Your task to perform on an android device: toggle show notifications on the lock screen Image 0: 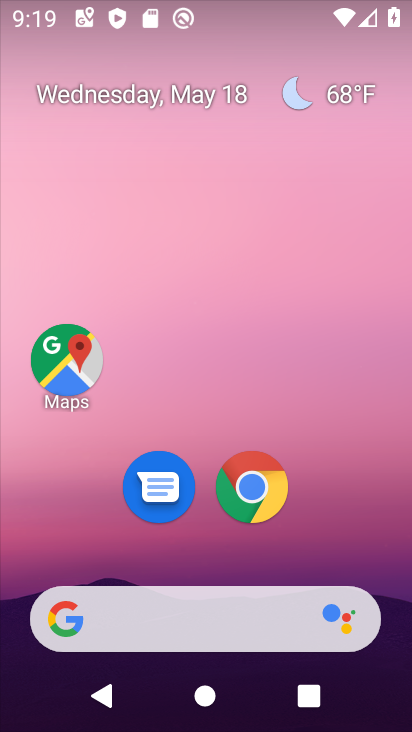
Step 0: drag from (340, 527) to (305, 192)
Your task to perform on an android device: toggle show notifications on the lock screen Image 1: 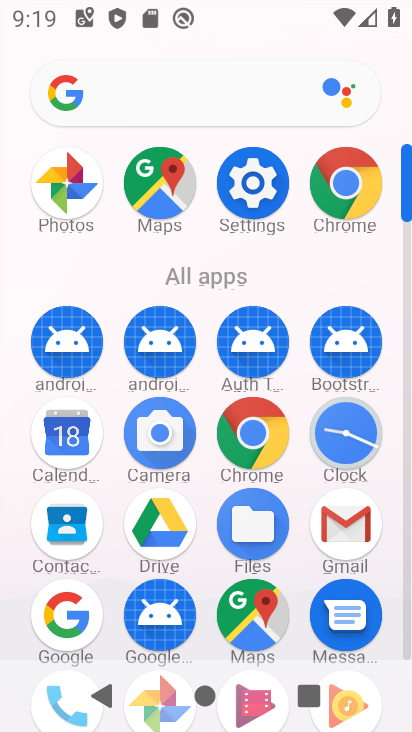
Step 1: click (267, 199)
Your task to perform on an android device: toggle show notifications on the lock screen Image 2: 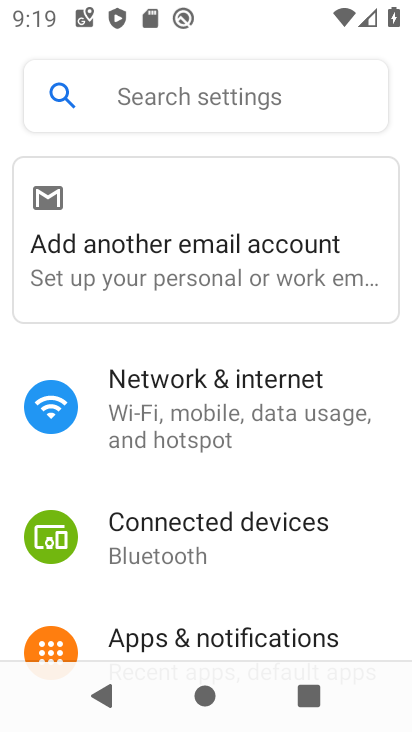
Step 2: click (290, 630)
Your task to perform on an android device: toggle show notifications on the lock screen Image 3: 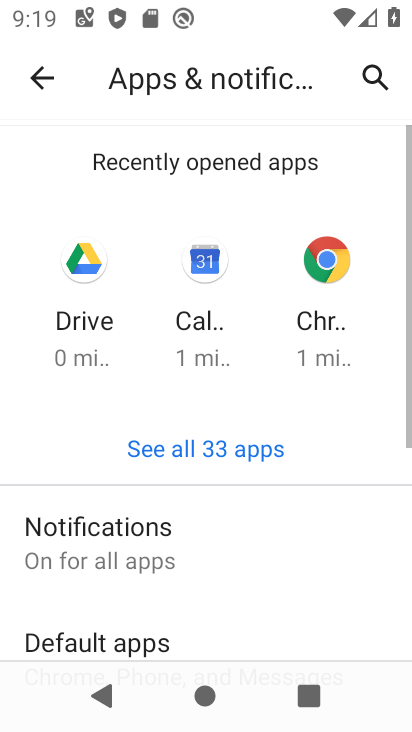
Step 3: drag from (261, 562) to (237, 194)
Your task to perform on an android device: toggle show notifications on the lock screen Image 4: 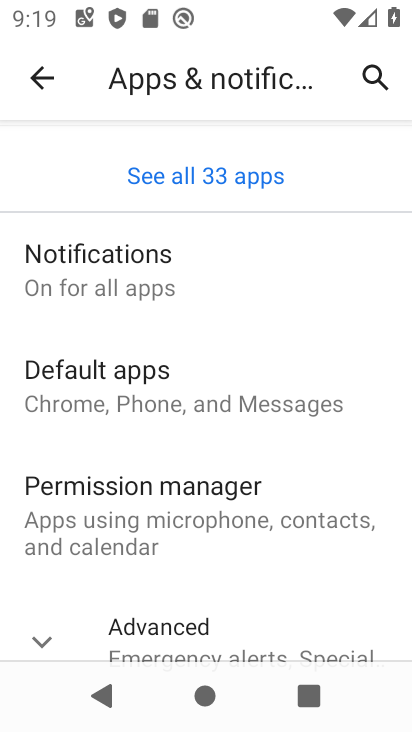
Step 4: click (116, 269)
Your task to perform on an android device: toggle show notifications on the lock screen Image 5: 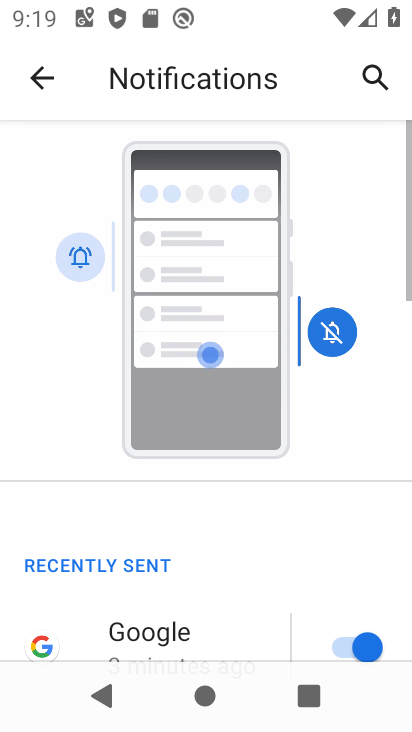
Step 5: drag from (289, 578) to (340, 149)
Your task to perform on an android device: toggle show notifications on the lock screen Image 6: 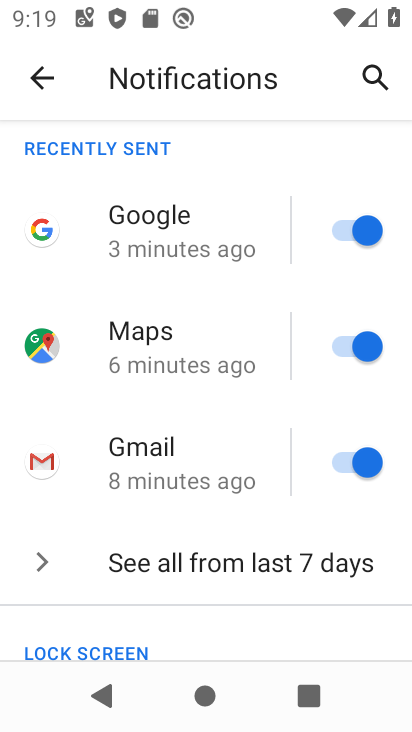
Step 6: drag from (229, 638) to (252, 231)
Your task to perform on an android device: toggle show notifications on the lock screen Image 7: 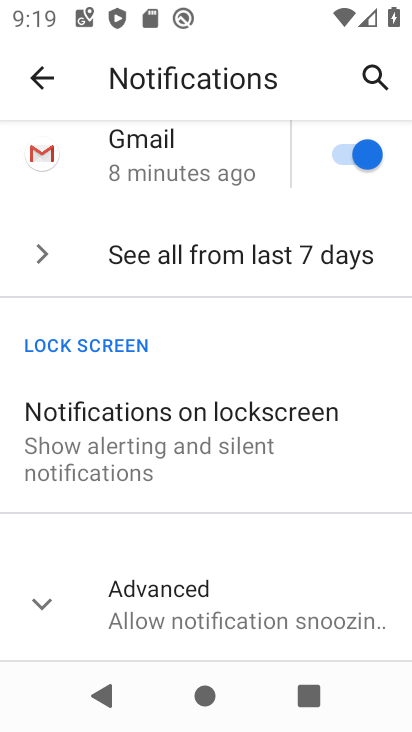
Step 7: click (241, 444)
Your task to perform on an android device: toggle show notifications on the lock screen Image 8: 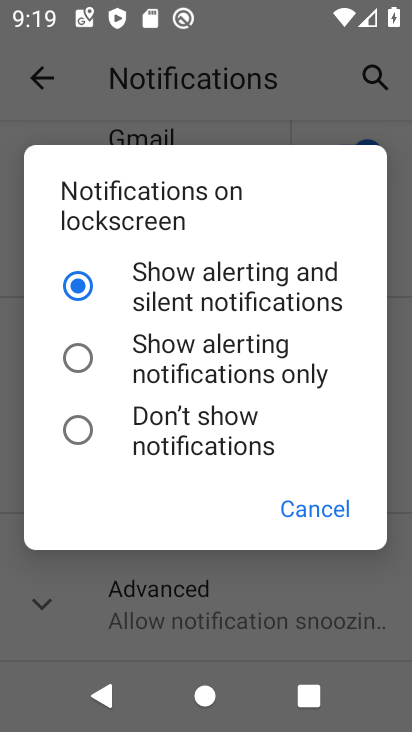
Step 8: click (241, 444)
Your task to perform on an android device: toggle show notifications on the lock screen Image 9: 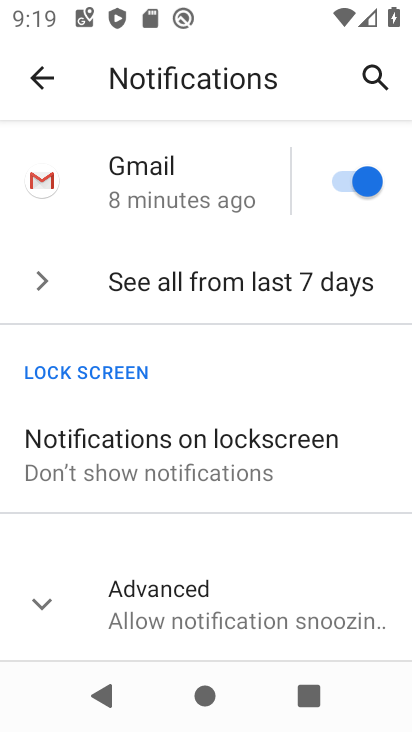
Step 9: task complete